Your task to perform on an android device: Show me productivity apps on the Play Store Image 0: 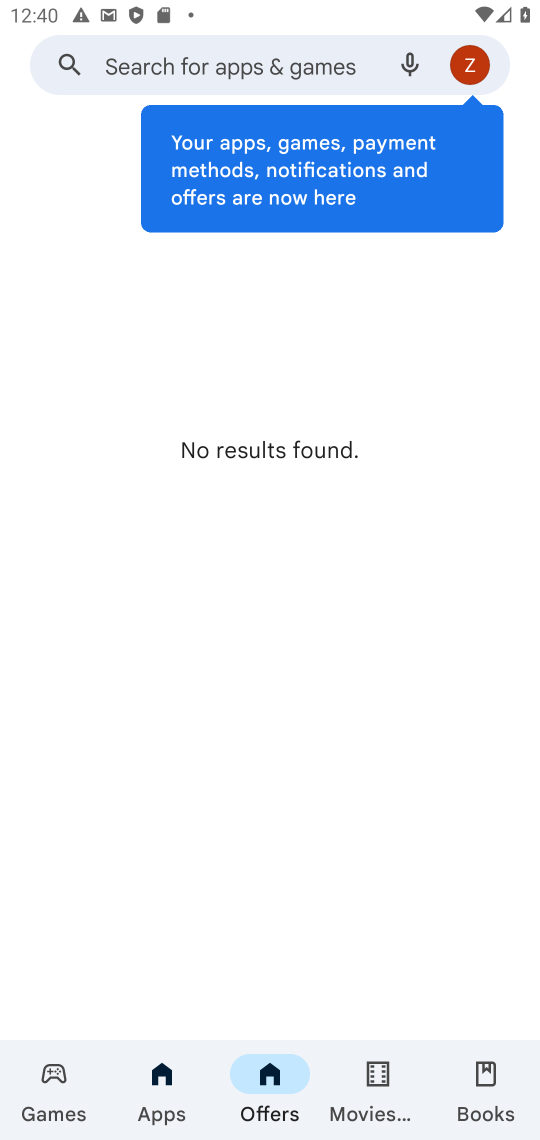
Step 0: press home button
Your task to perform on an android device: Show me productivity apps on the Play Store Image 1: 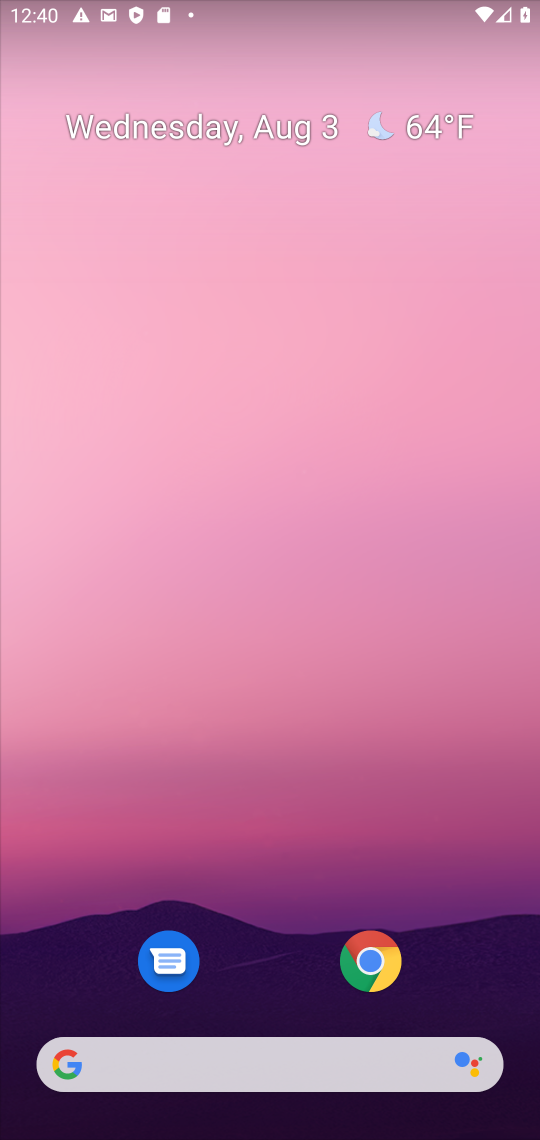
Step 1: drag from (278, 768) to (269, 55)
Your task to perform on an android device: Show me productivity apps on the Play Store Image 2: 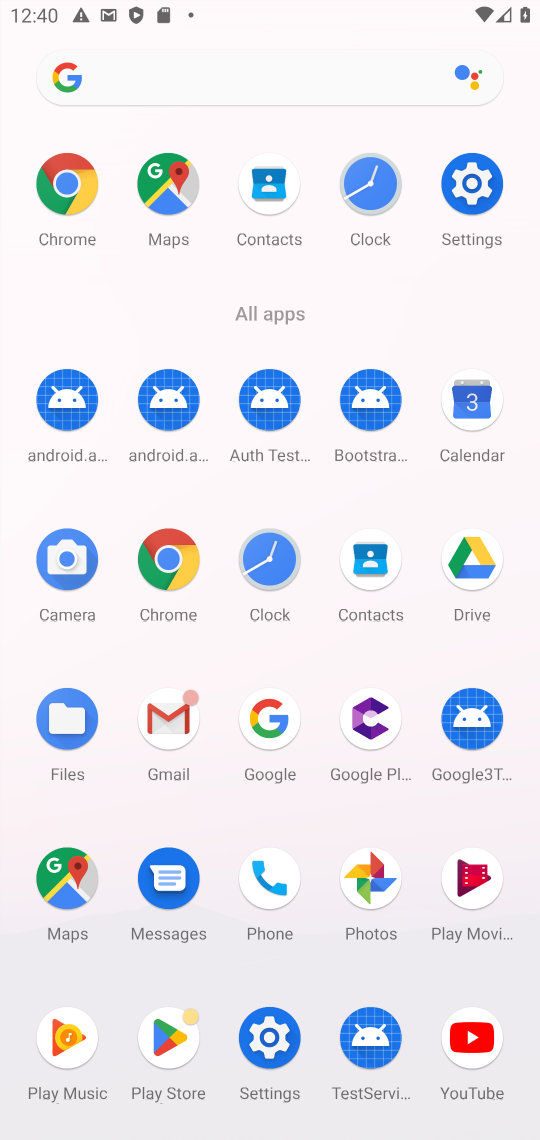
Step 2: click (159, 1043)
Your task to perform on an android device: Show me productivity apps on the Play Store Image 3: 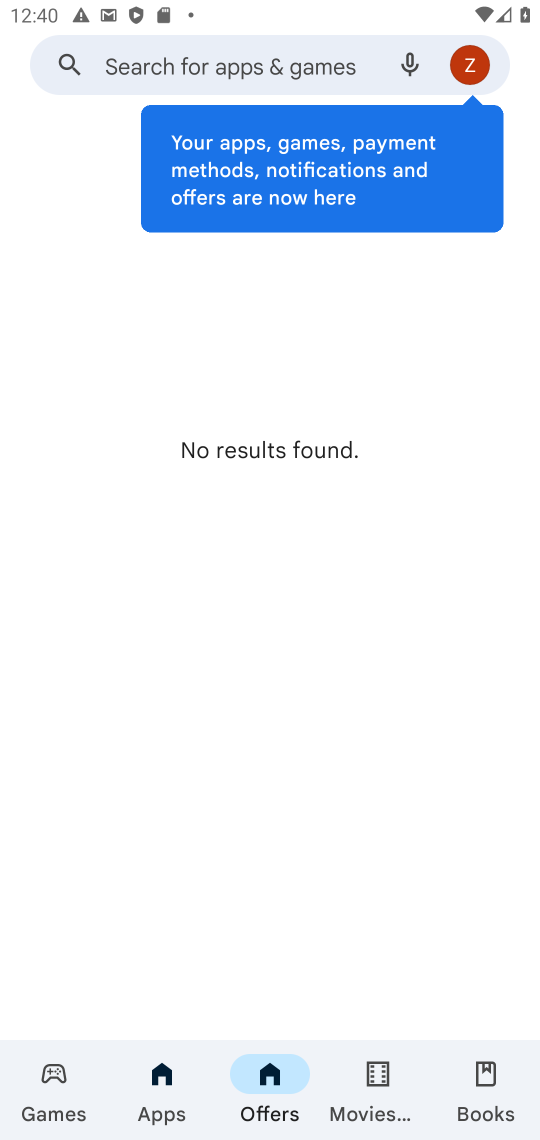
Step 3: click (160, 1101)
Your task to perform on an android device: Show me productivity apps on the Play Store Image 4: 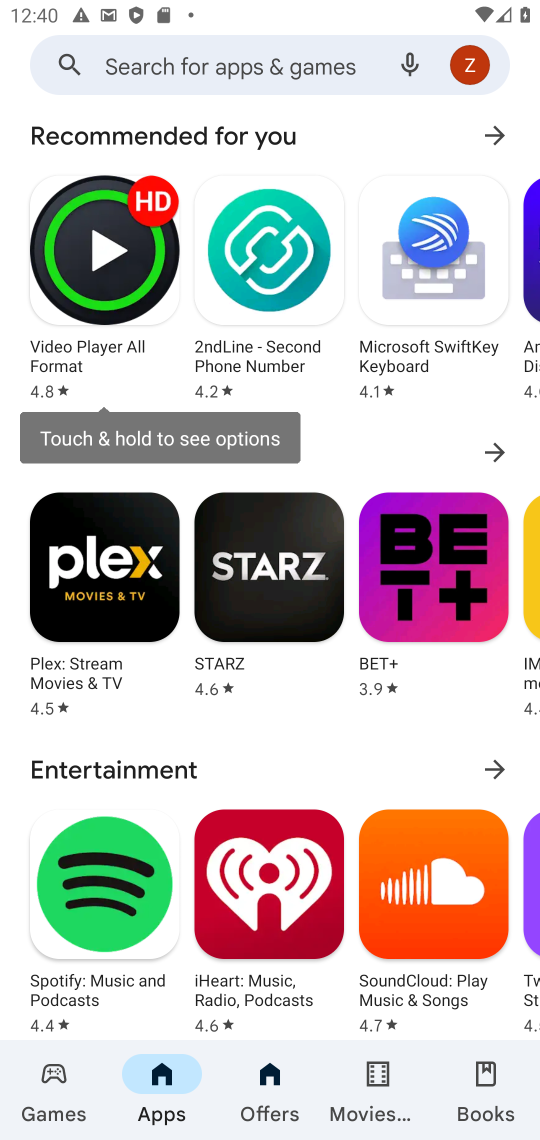
Step 4: drag from (336, 413) to (336, 1005)
Your task to perform on an android device: Show me productivity apps on the Play Store Image 5: 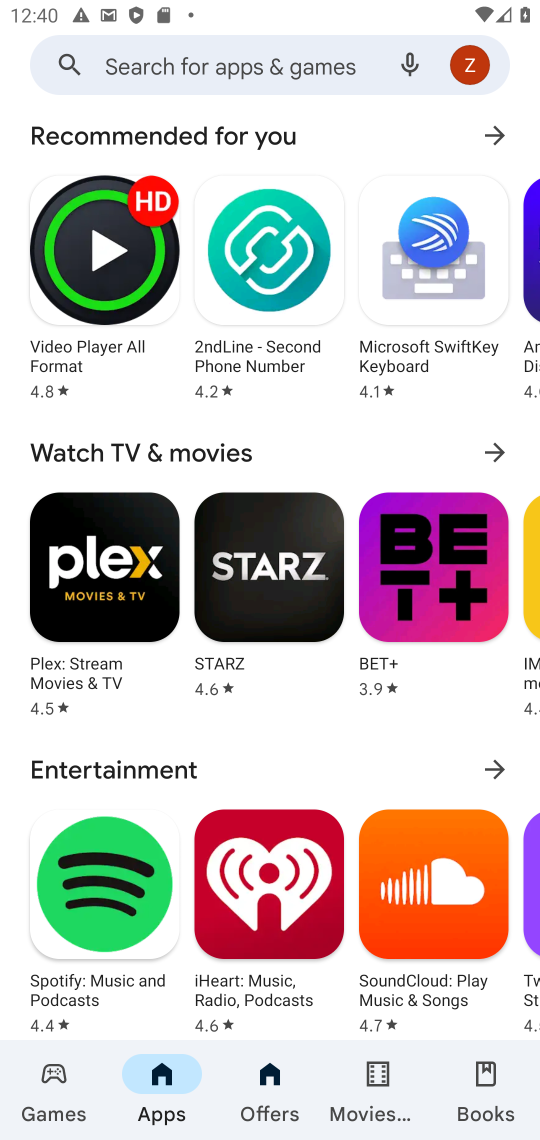
Step 5: drag from (356, 188) to (362, 771)
Your task to perform on an android device: Show me productivity apps on the Play Store Image 6: 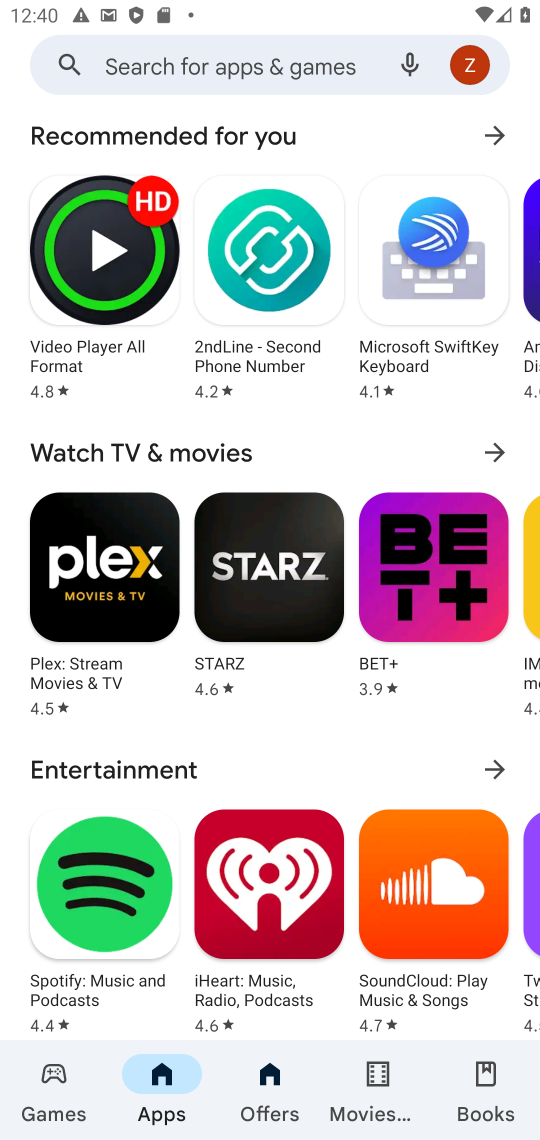
Step 6: drag from (281, 179) to (323, 639)
Your task to perform on an android device: Show me productivity apps on the Play Store Image 7: 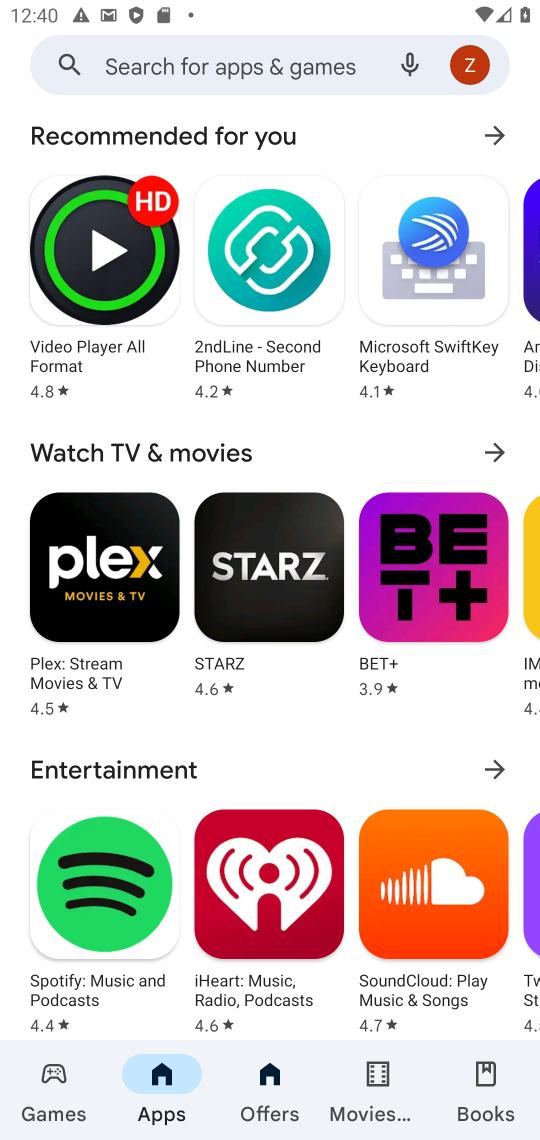
Step 7: drag from (342, 259) to (358, 714)
Your task to perform on an android device: Show me productivity apps on the Play Store Image 8: 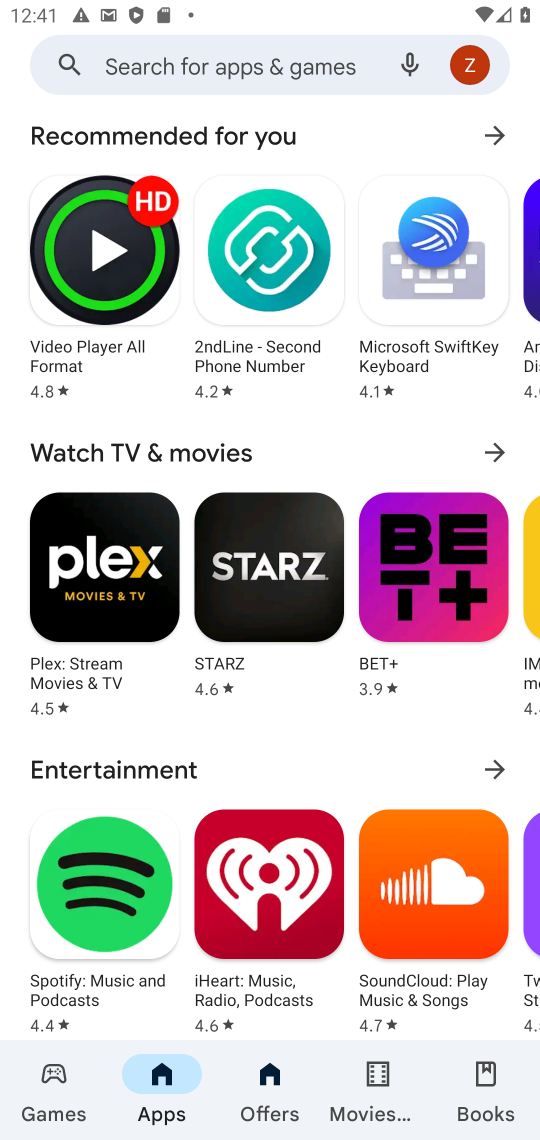
Step 8: press back button
Your task to perform on an android device: Show me productivity apps on the Play Store Image 9: 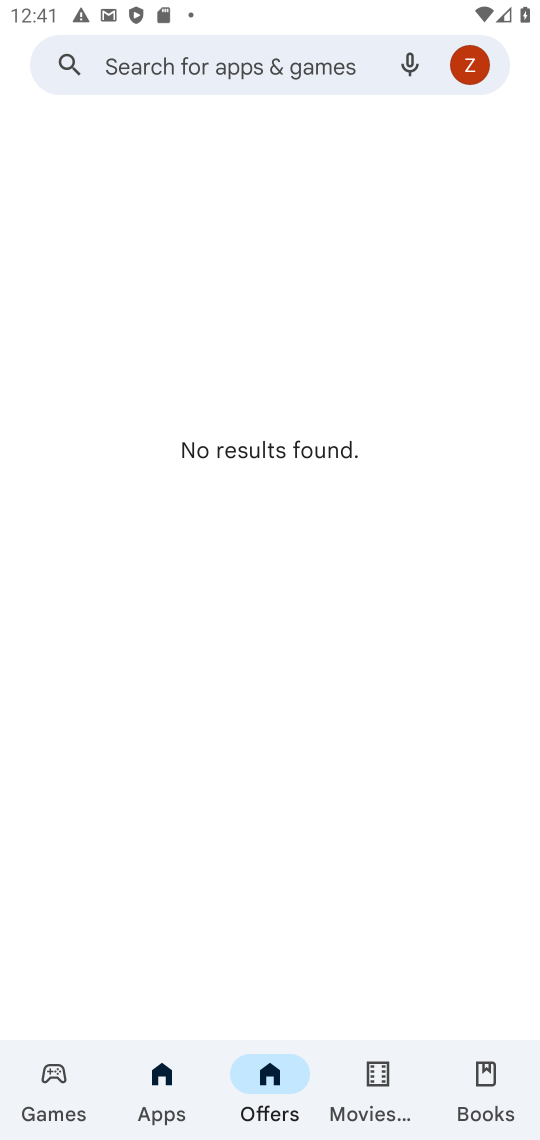
Step 9: click (162, 1098)
Your task to perform on an android device: Show me productivity apps on the Play Store Image 10: 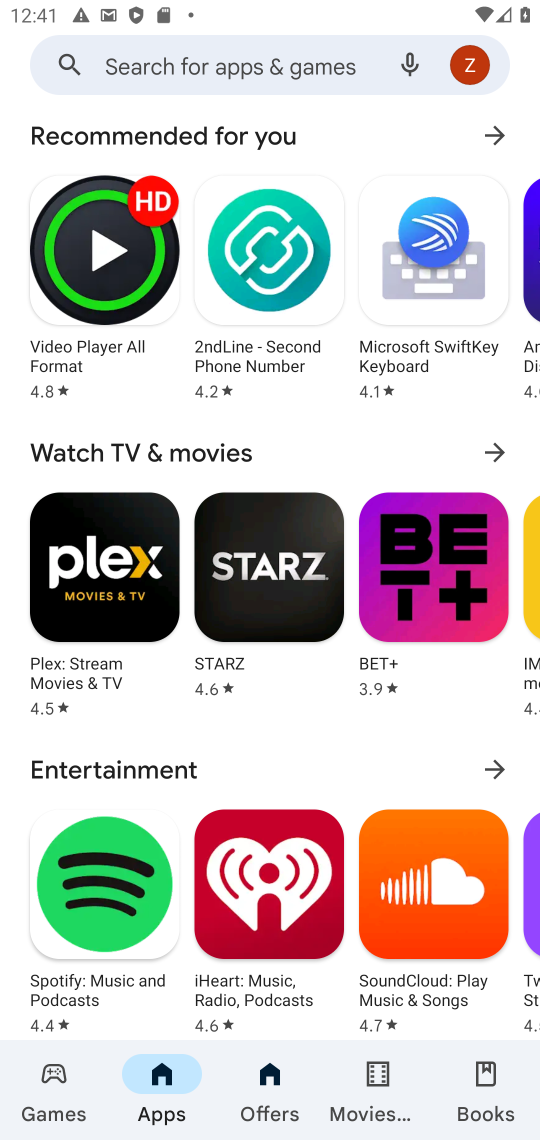
Step 10: drag from (338, 191) to (349, 813)
Your task to perform on an android device: Show me productivity apps on the Play Store Image 11: 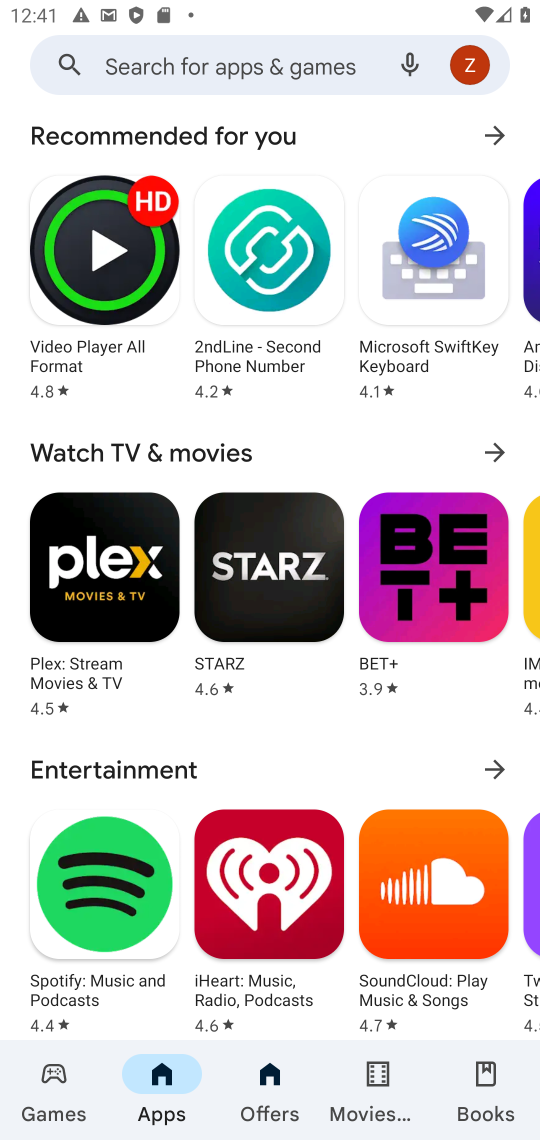
Step 11: drag from (324, 149) to (348, 750)
Your task to perform on an android device: Show me productivity apps on the Play Store Image 12: 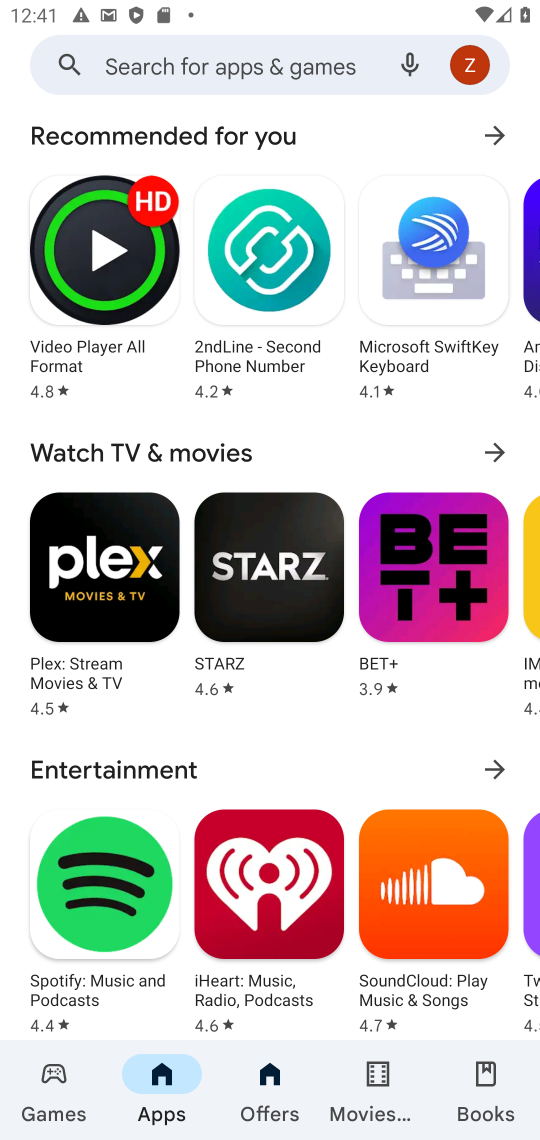
Step 12: click (364, 609)
Your task to perform on an android device: Show me productivity apps on the Play Store Image 13: 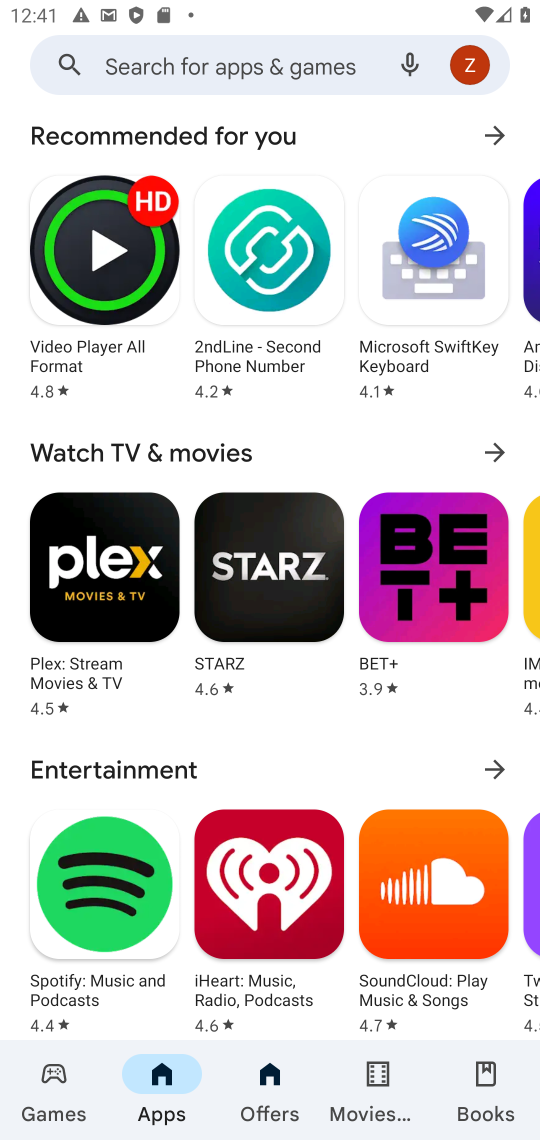
Step 13: click (115, 70)
Your task to perform on an android device: Show me productivity apps on the Play Store Image 14: 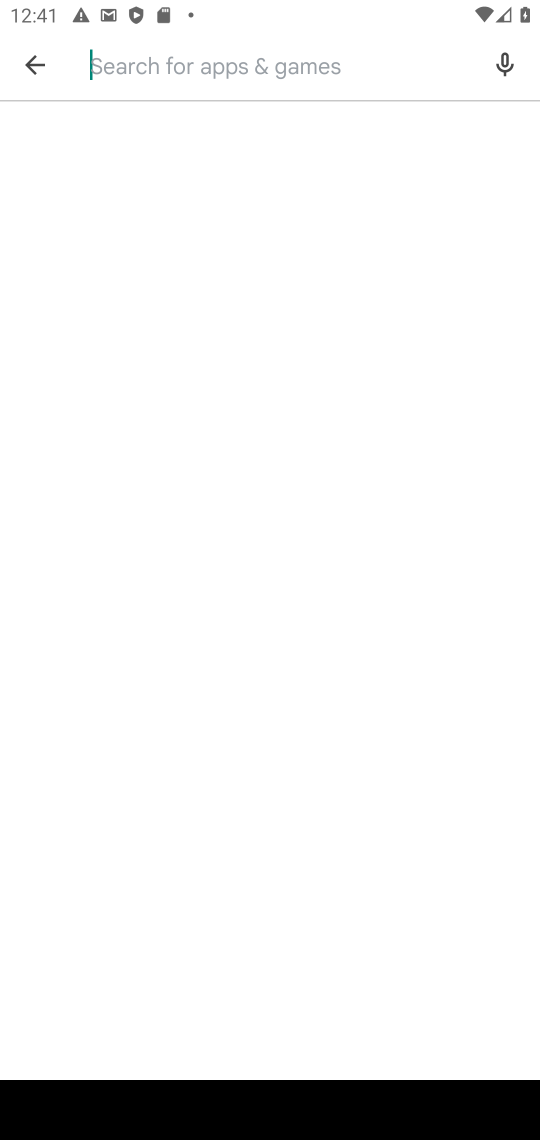
Step 14: type "productivity apps"
Your task to perform on an android device: Show me productivity apps on the Play Store Image 15: 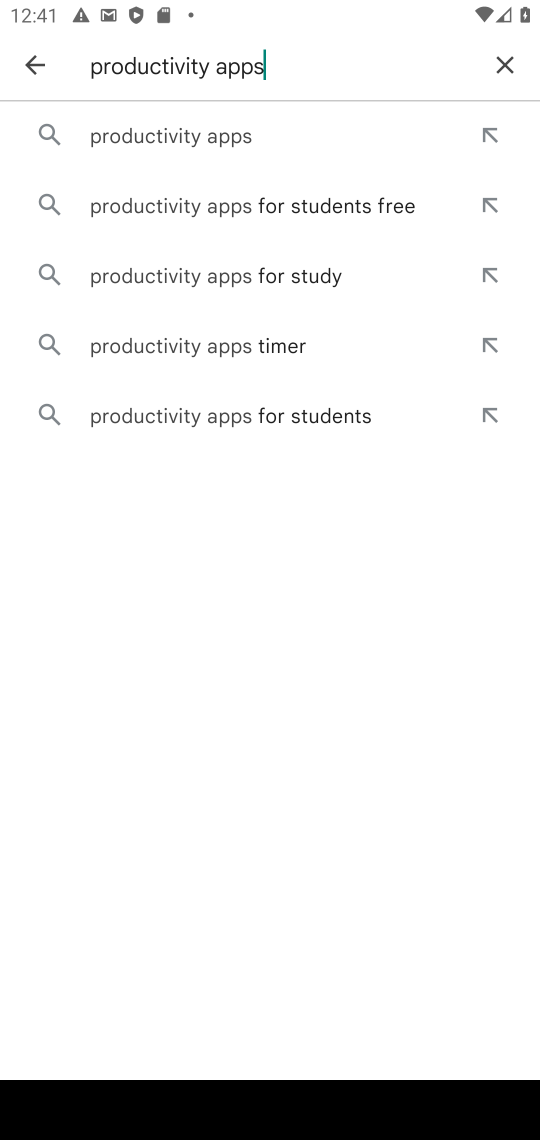
Step 15: click (206, 134)
Your task to perform on an android device: Show me productivity apps on the Play Store Image 16: 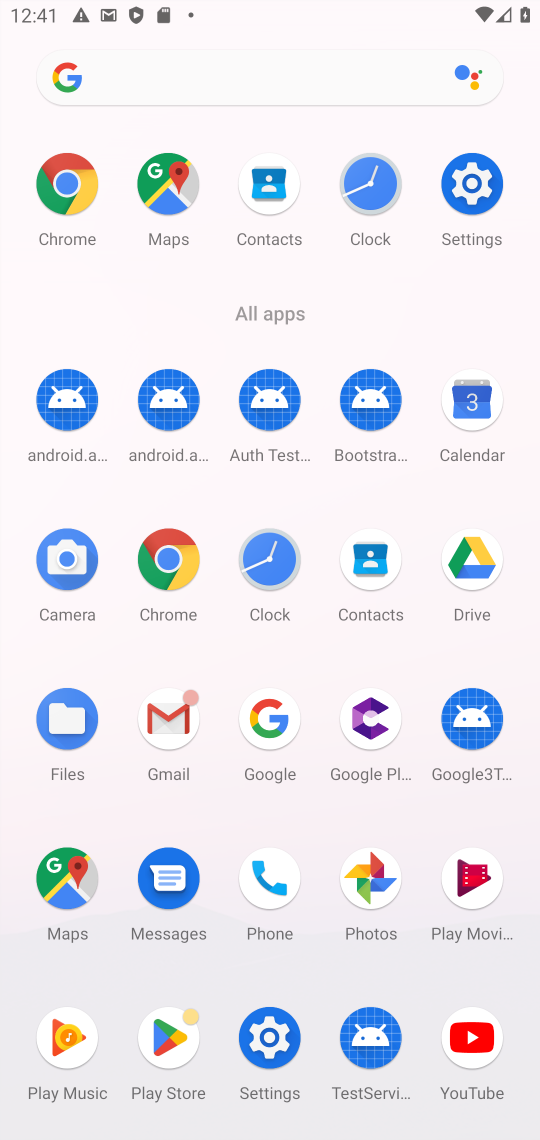
Step 16: click (165, 1047)
Your task to perform on an android device: Show me productivity apps on the Play Store Image 17: 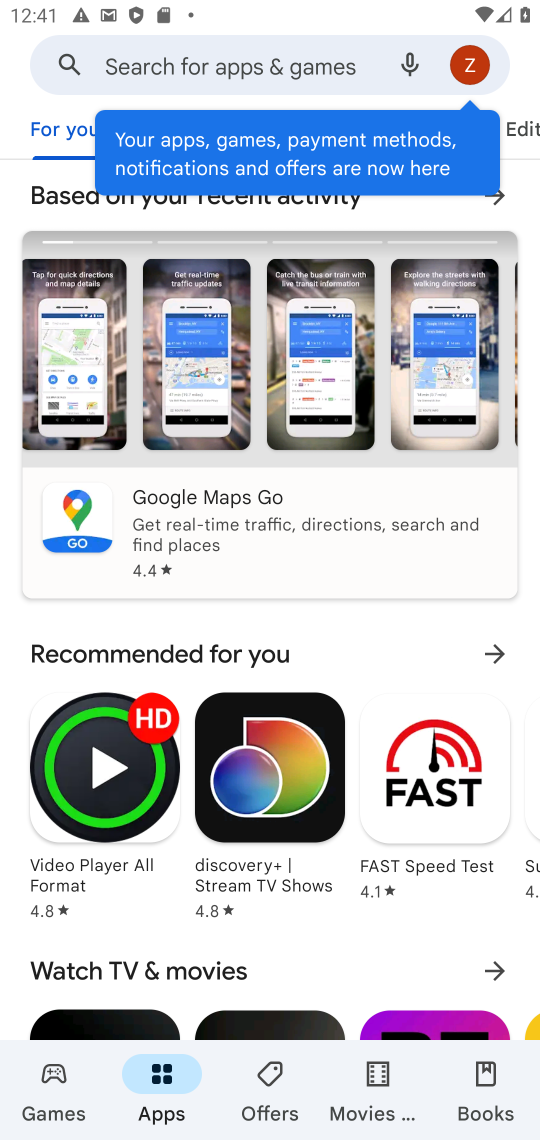
Step 17: click (161, 1077)
Your task to perform on an android device: Show me productivity apps on the Play Store Image 18: 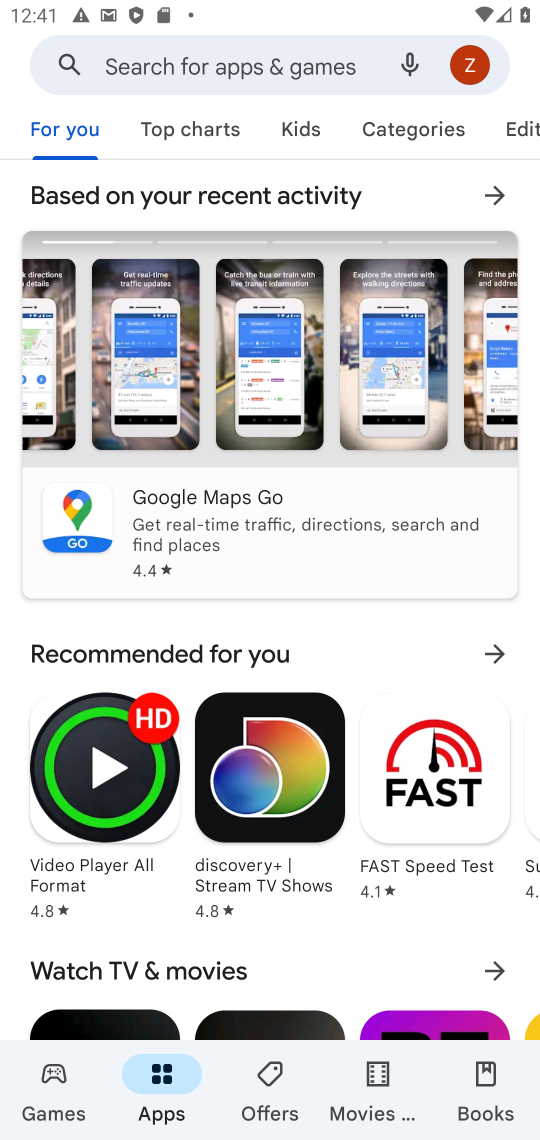
Step 18: click (432, 139)
Your task to perform on an android device: Show me productivity apps on the Play Store Image 19: 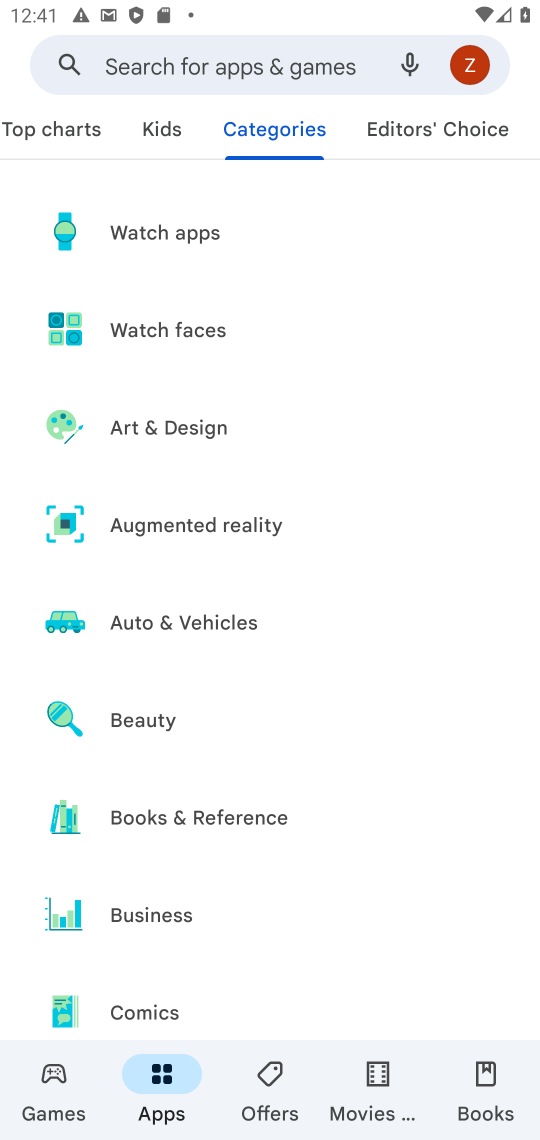
Step 19: drag from (356, 860) to (324, 78)
Your task to perform on an android device: Show me productivity apps on the Play Store Image 20: 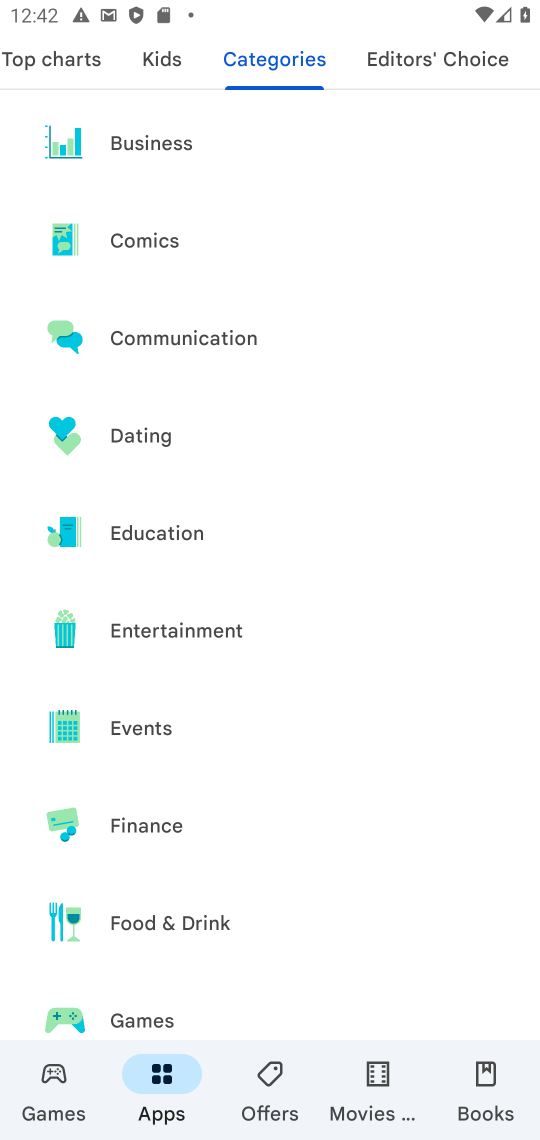
Step 20: drag from (374, 845) to (362, 89)
Your task to perform on an android device: Show me productivity apps on the Play Store Image 21: 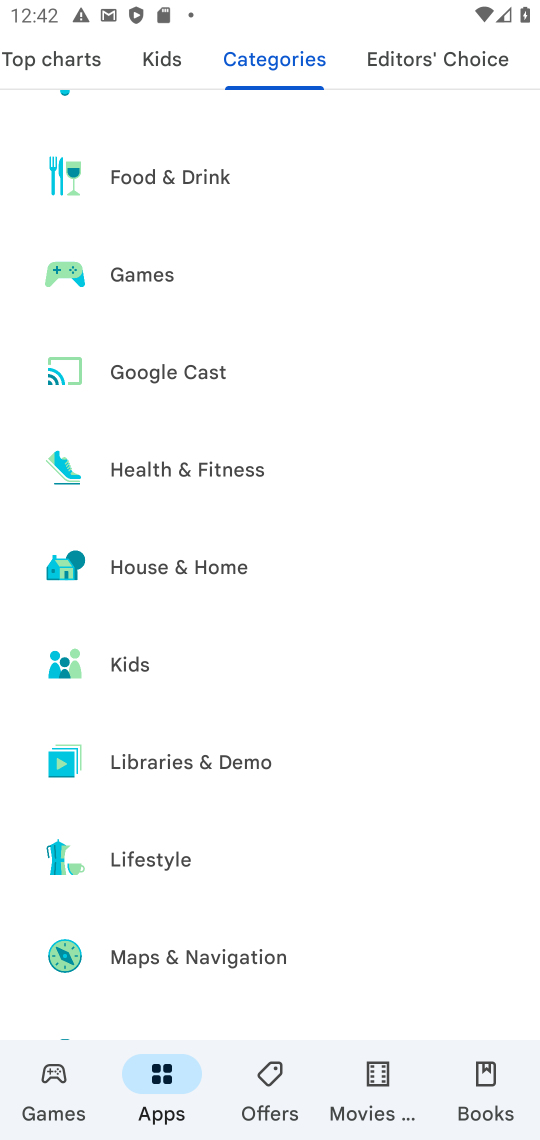
Step 21: drag from (384, 849) to (334, 122)
Your task to perform on an android device: Show me productivity apps on the Play Store Image 22: 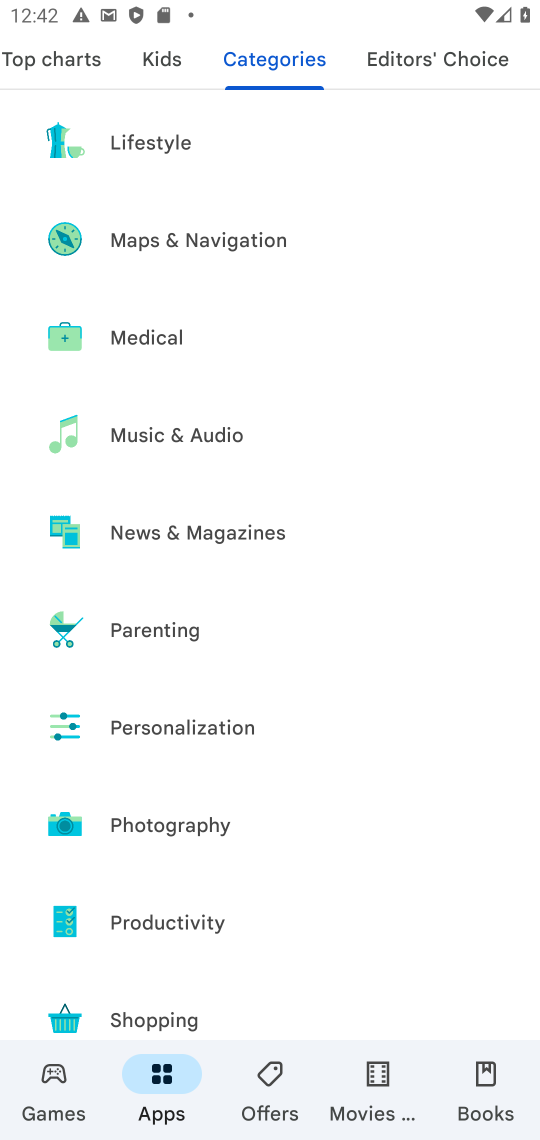
Step 22: click (166, 927)
Your task to perform on an android device: Show me productivity apps on the Play Store Image 23: 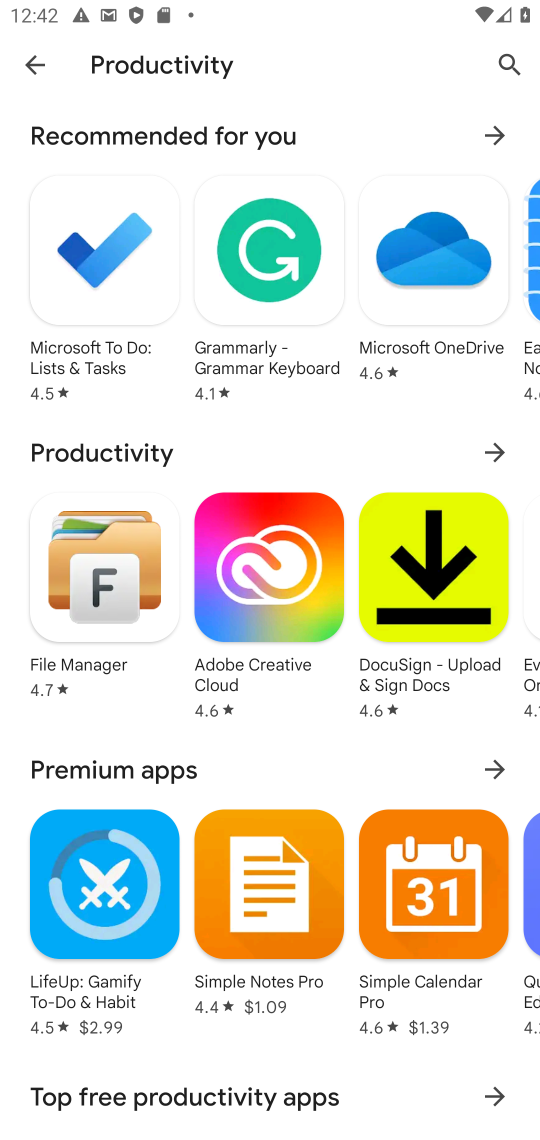
Step 23: task complete